Your task to perform on an android device: What's the price of the Hisense TV? Image 0: 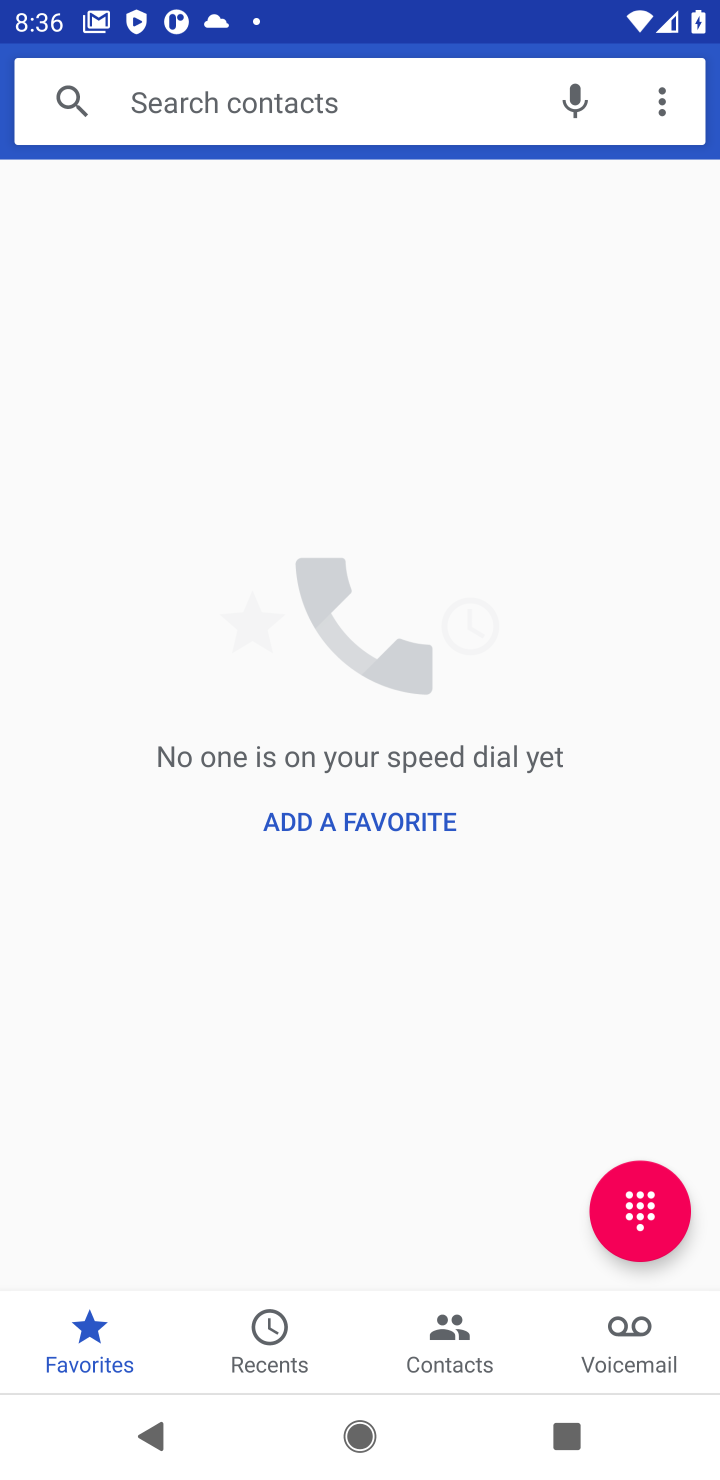
Step 0: press home button
Your task to perform on an android device: What's the price of the Hisense TV? Image 1: 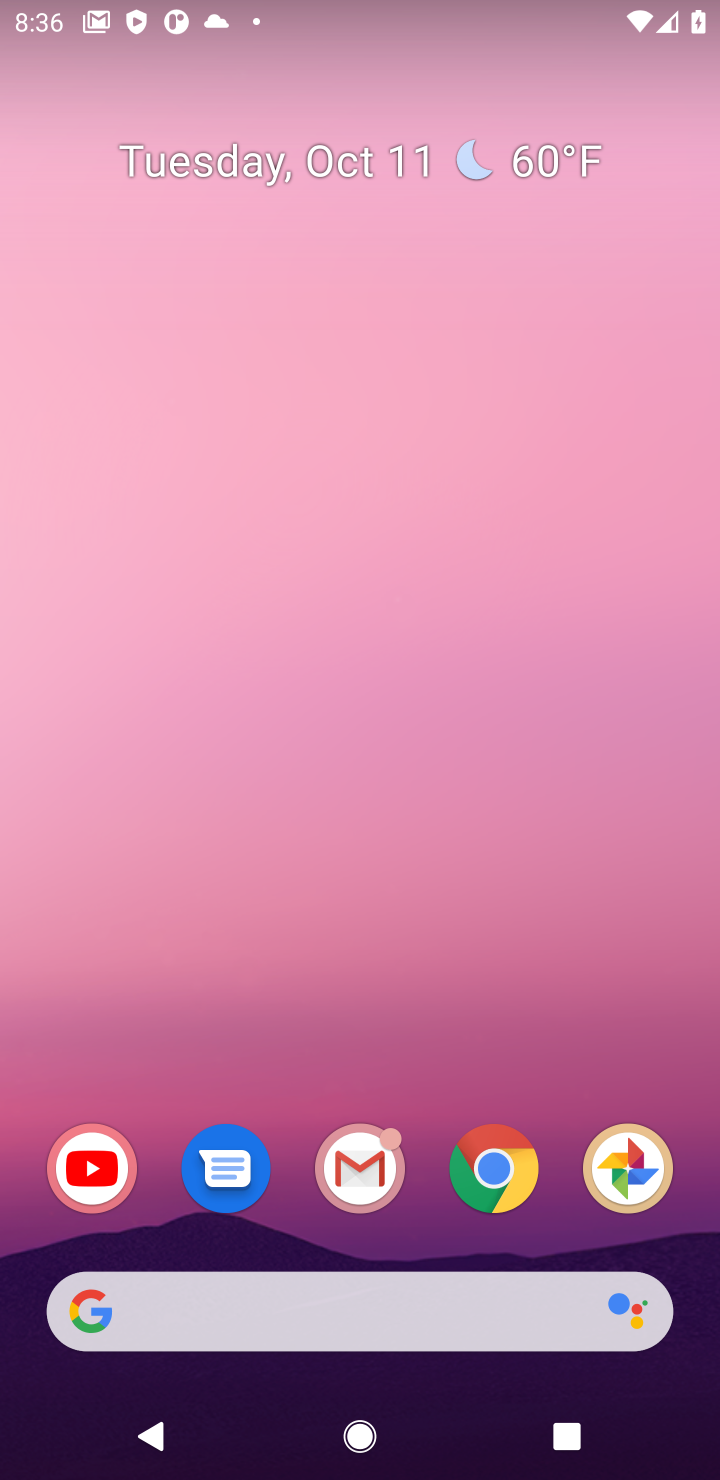
Step 1: click (495, 1172)
Your task to perform on an android device: What's the price of the Hisense TV? Image 2: 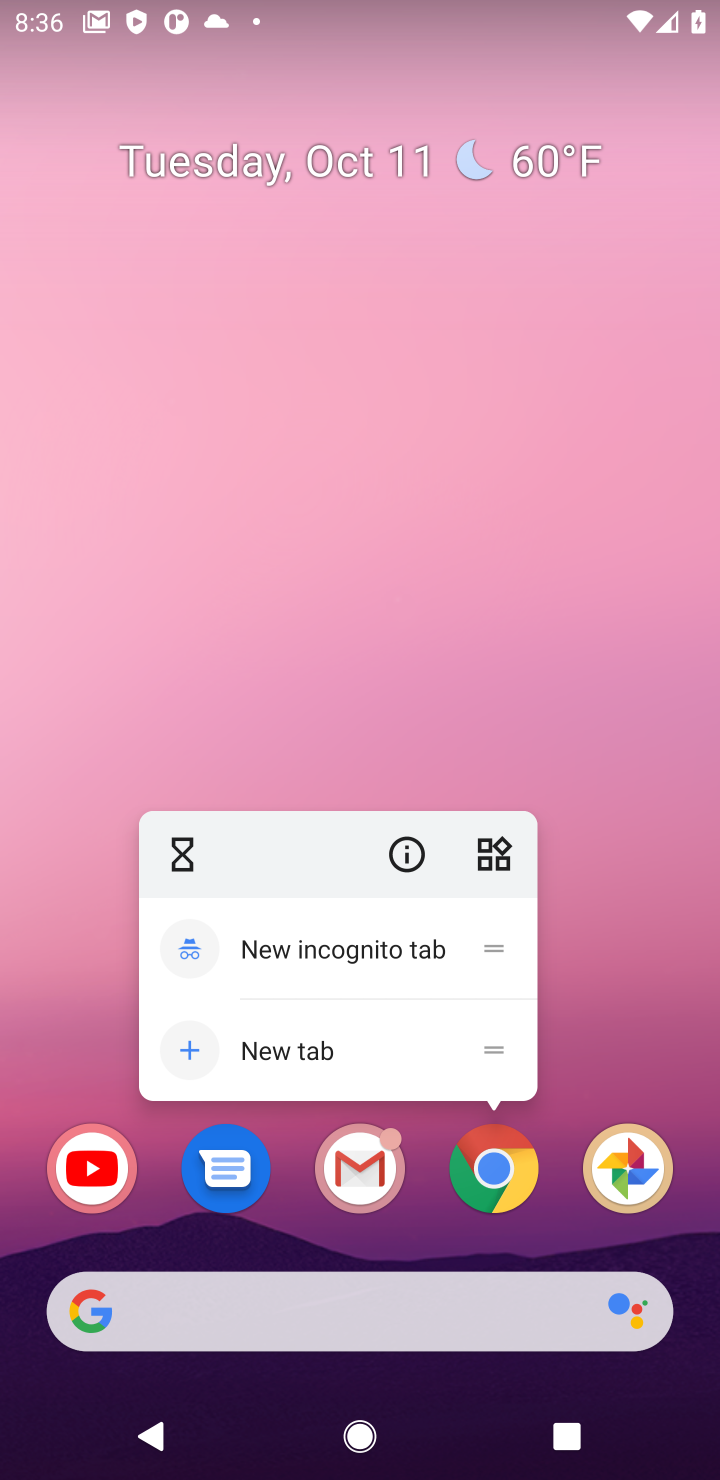
Step 2: click (504, 1158)
Your task to perform on an android device: What's the price of the Hisense TV? Image 3: 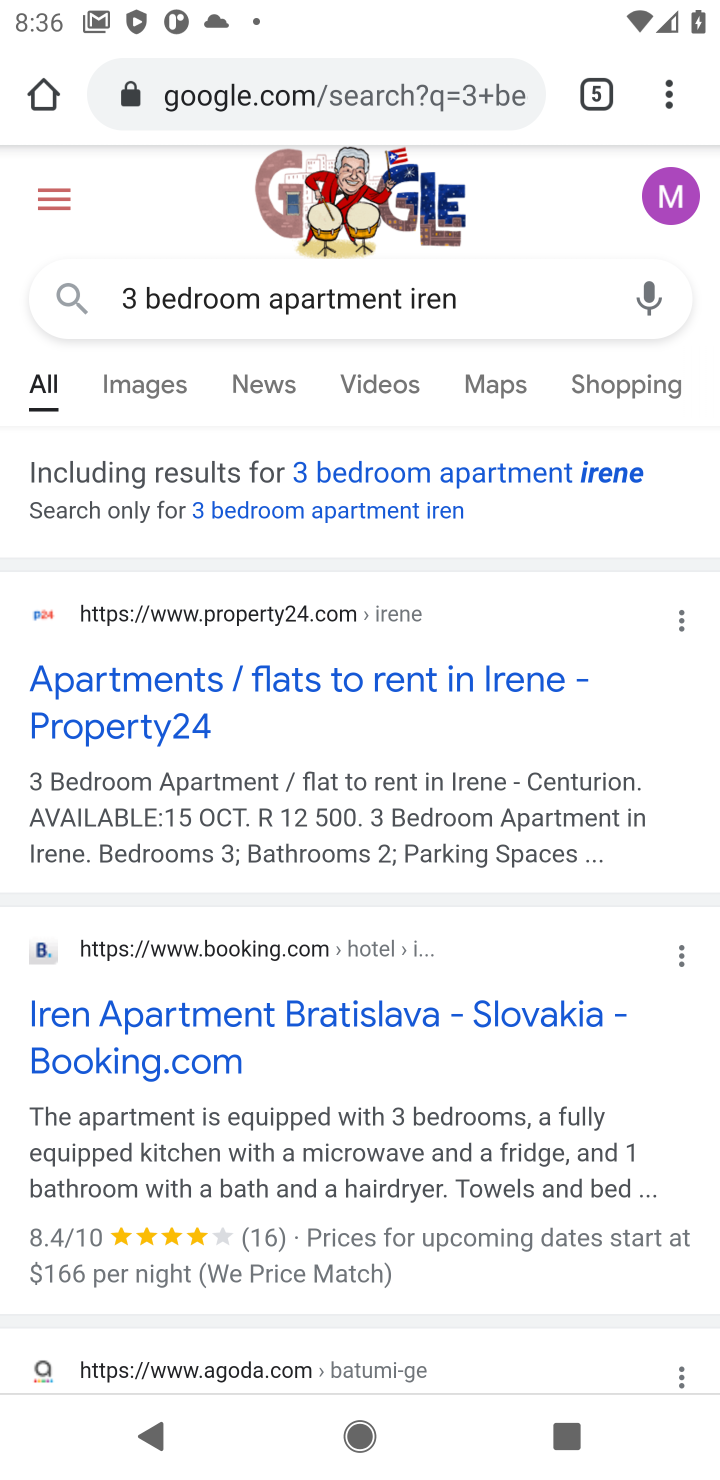
Step 3: click (339, 100)
Your task to perform on an android device: What's the price of the Hisense TV? Image 4: 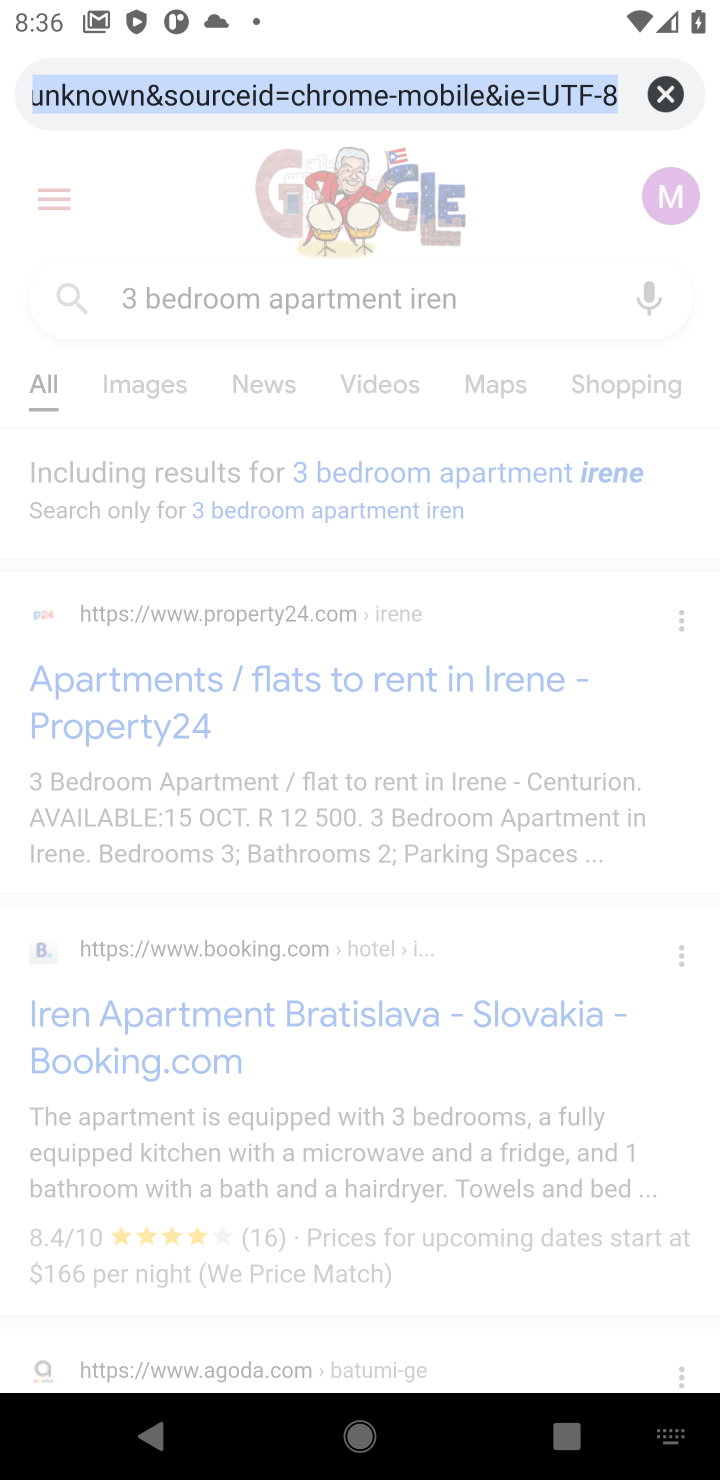
Step 4: click (651, 89)
Your task to perform on an android device: What's the price of the Hisense TV? Image 5: 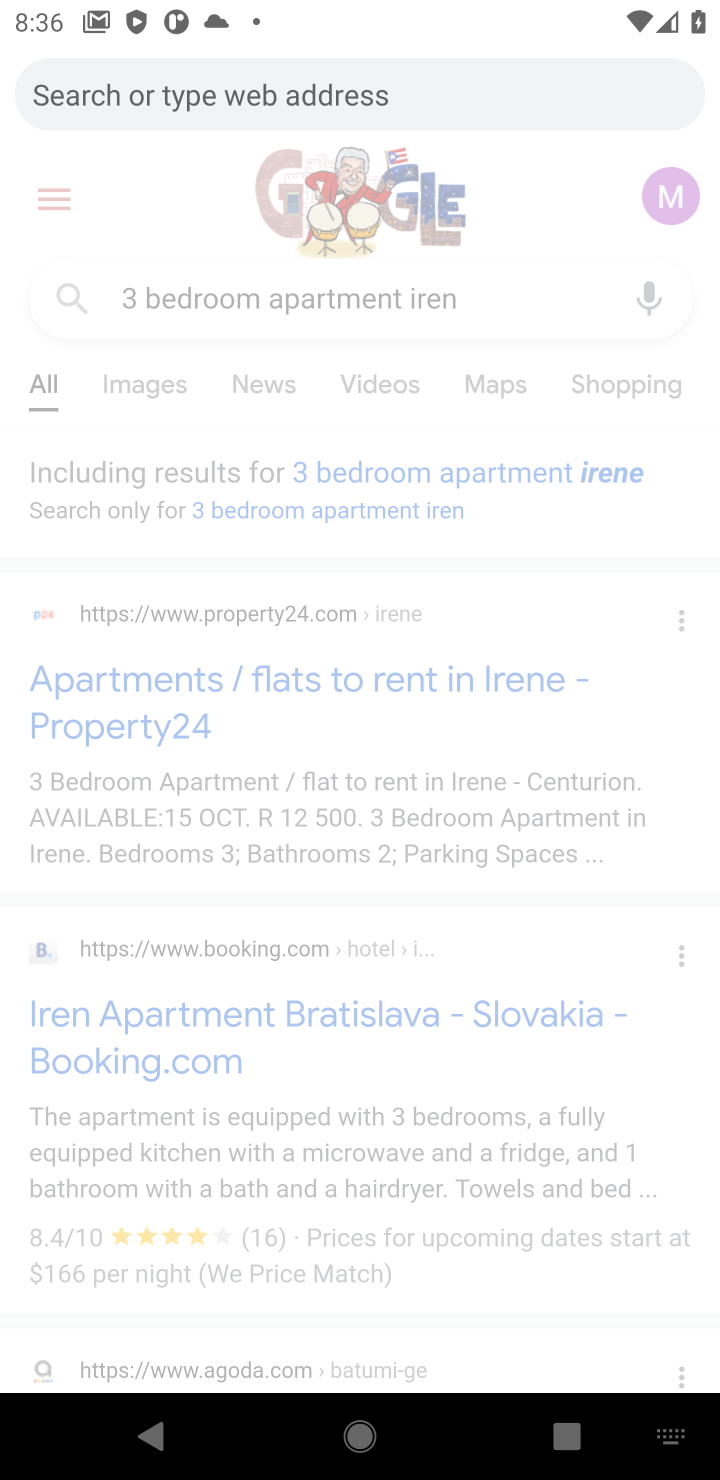
Step 5: type "price of the hisense TV"
Your task to perform on an android device: What's the price of the Hisense TV? Image 6: 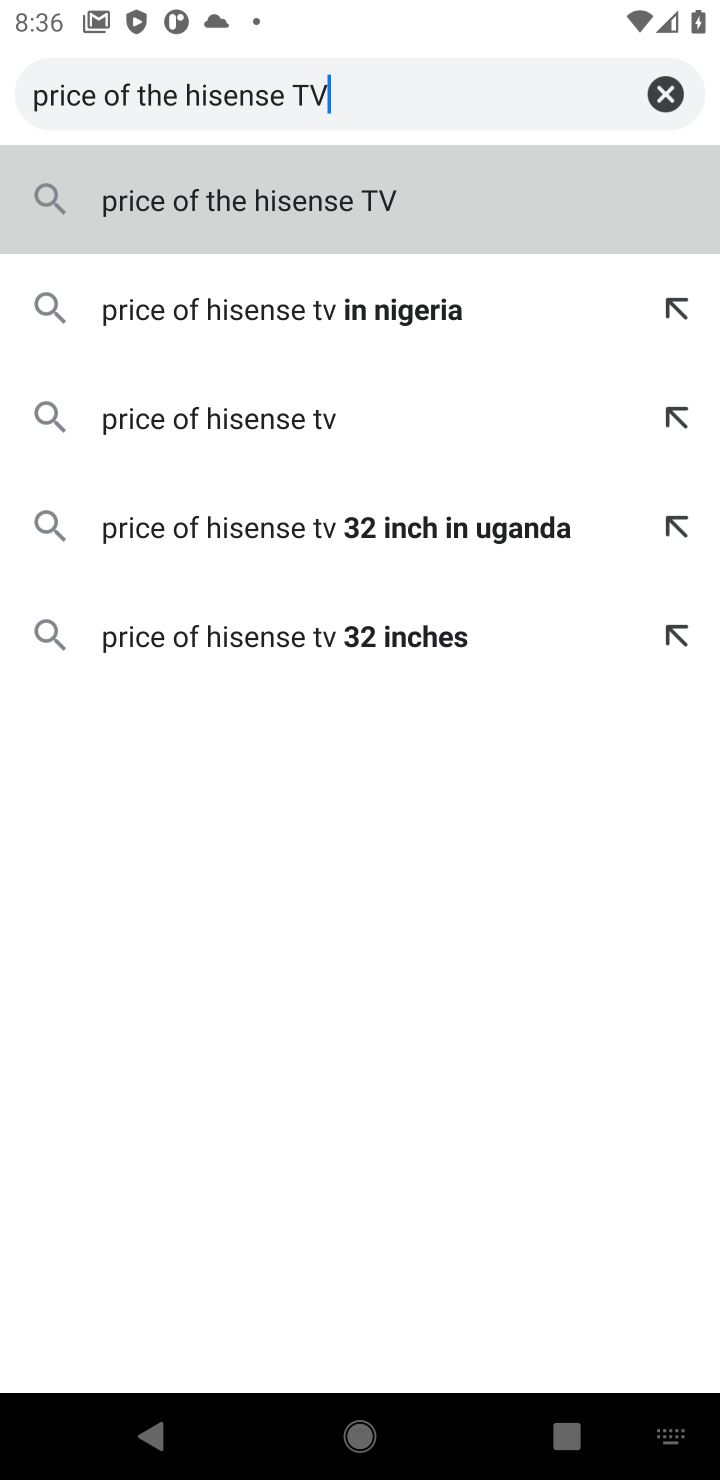
Step 6: click (343, 201)
Your task to perform on an android device: What's the price of the Hisense TV? Image 7: 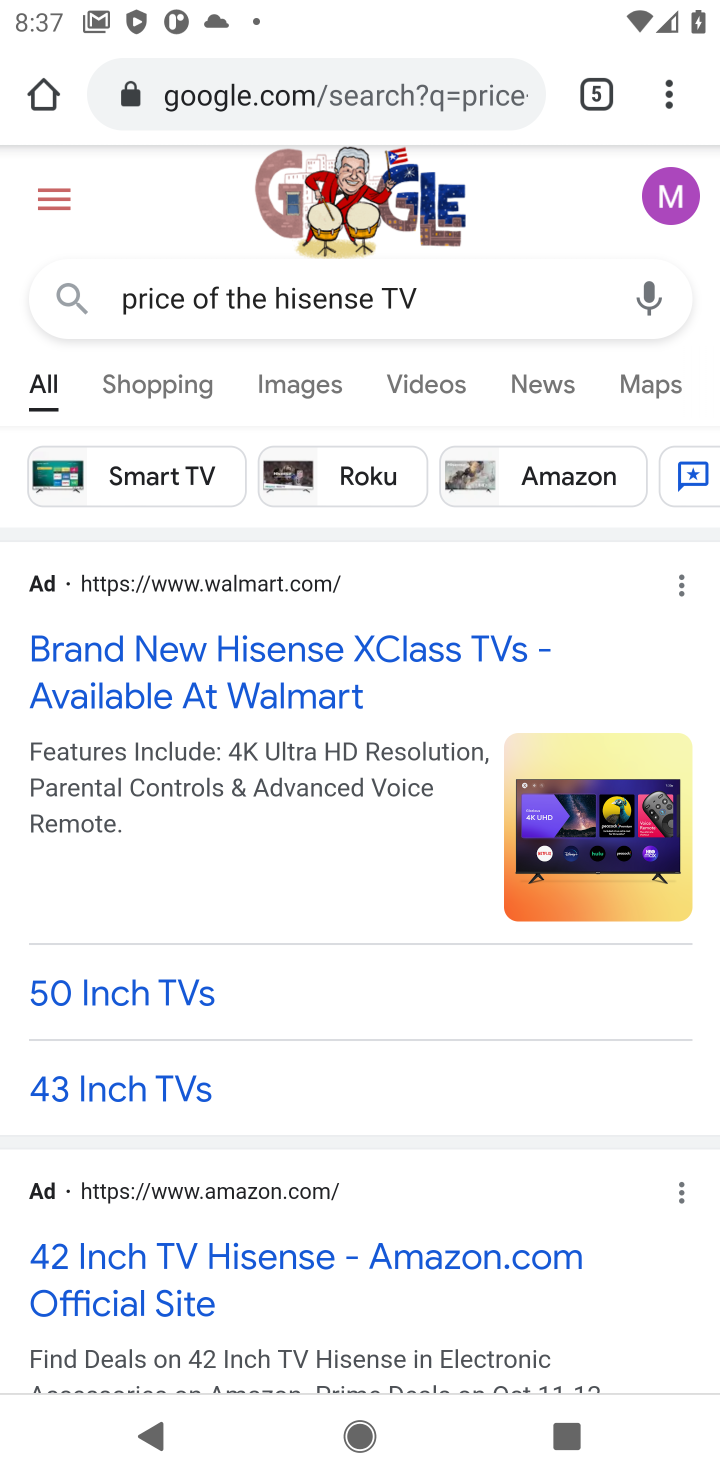
Step 7: drag from (323, 971) to (273, 524)
Your task to perform on an android device: What's the price of the Hisense TV? Image 8: 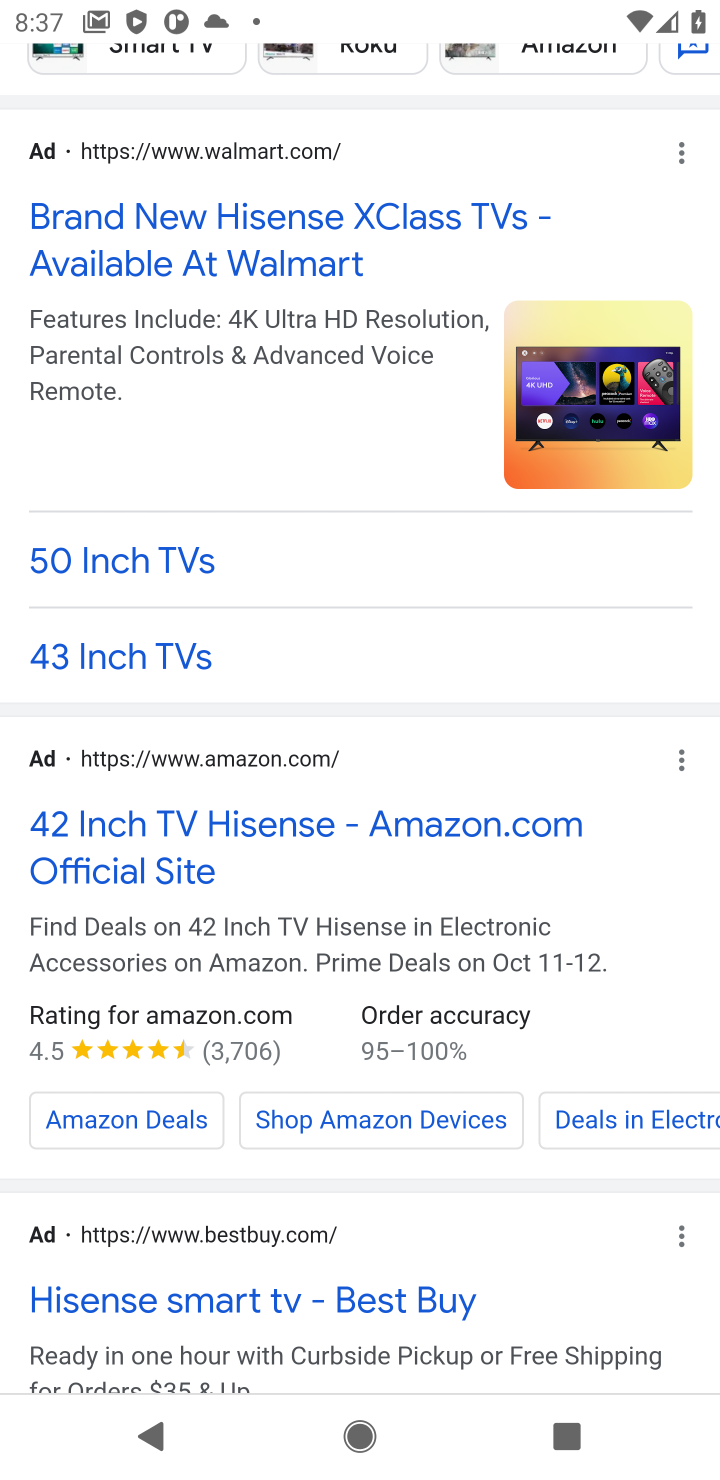
Step 8: click (228, 1295)
Your task to perform on an android device: What's the price of the Hisense TV? Image 9: 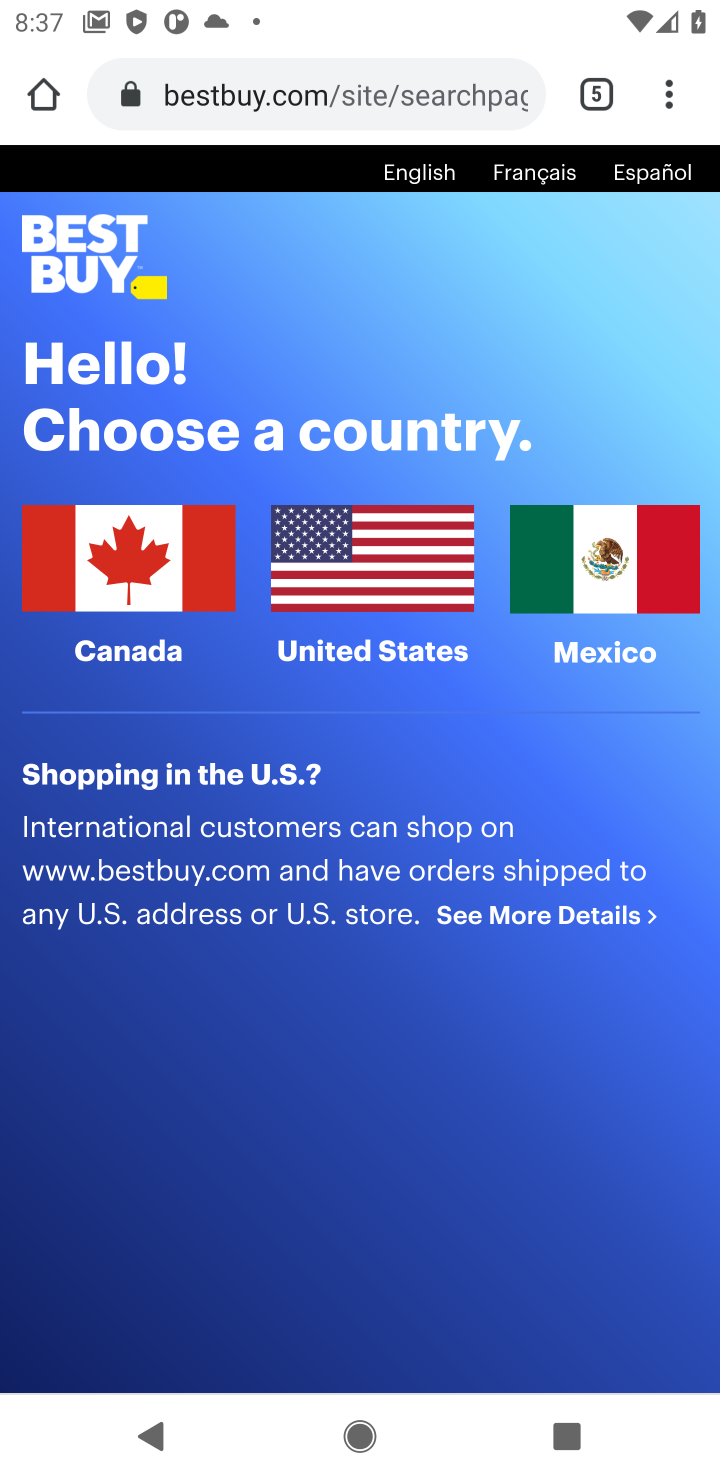
Step 9: click (104, 570)
Your task to perform on an android device: What's the price of the Hisense TV? Image 10: 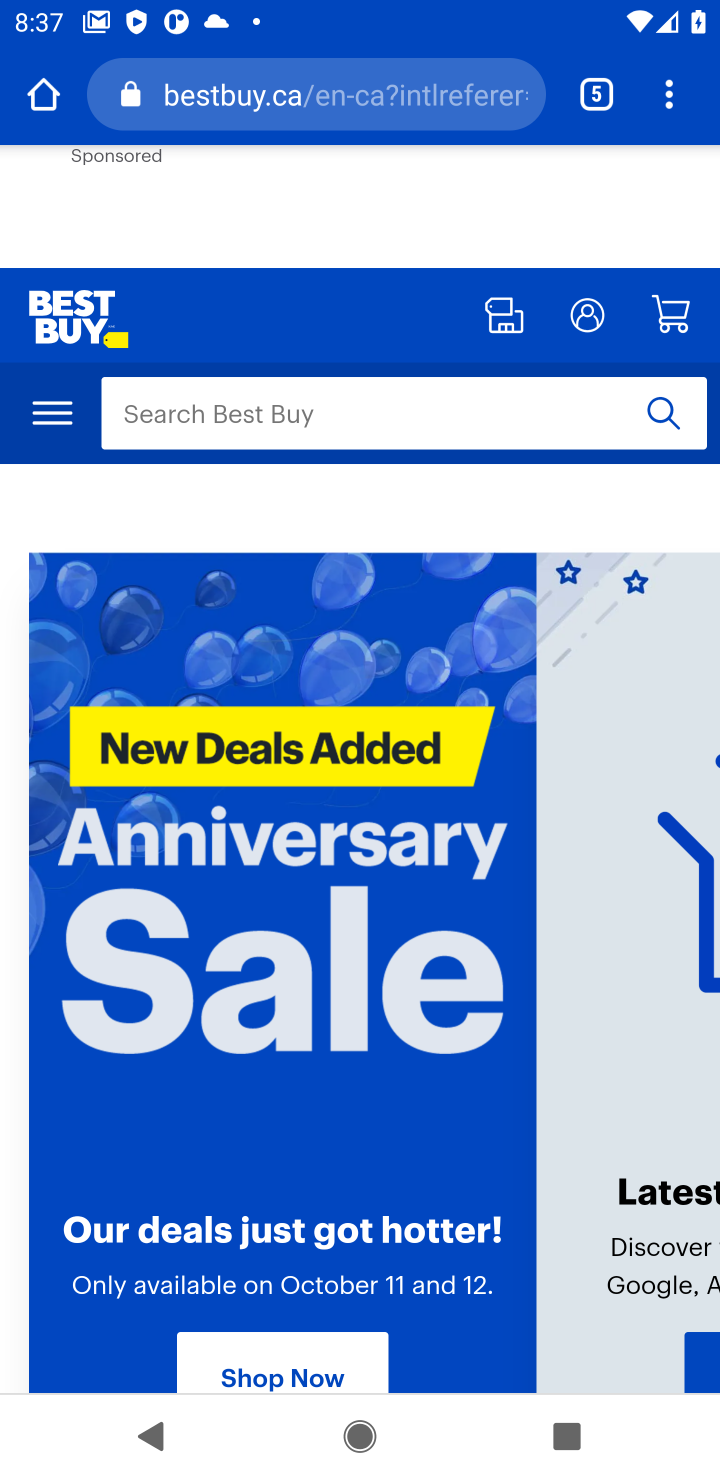
Step 10: drag from (561, 1002) to (565, 584)
Your task to perform on an android device: What's the price of the Hisense TV? Image 11: 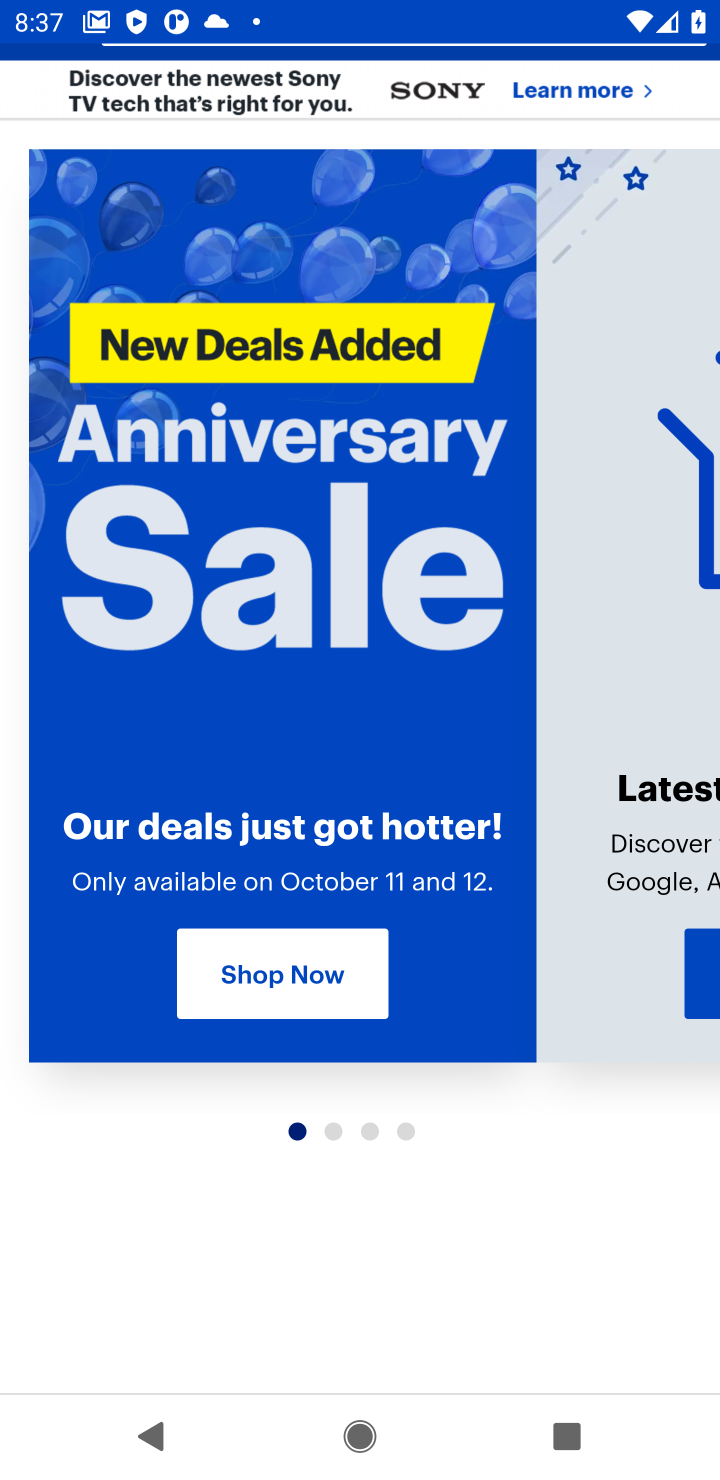
Step 11: drag from (145, 1106) to (295, 437)
Your task to perform on an android device: What's the price of the Hisense TV? Image 12: 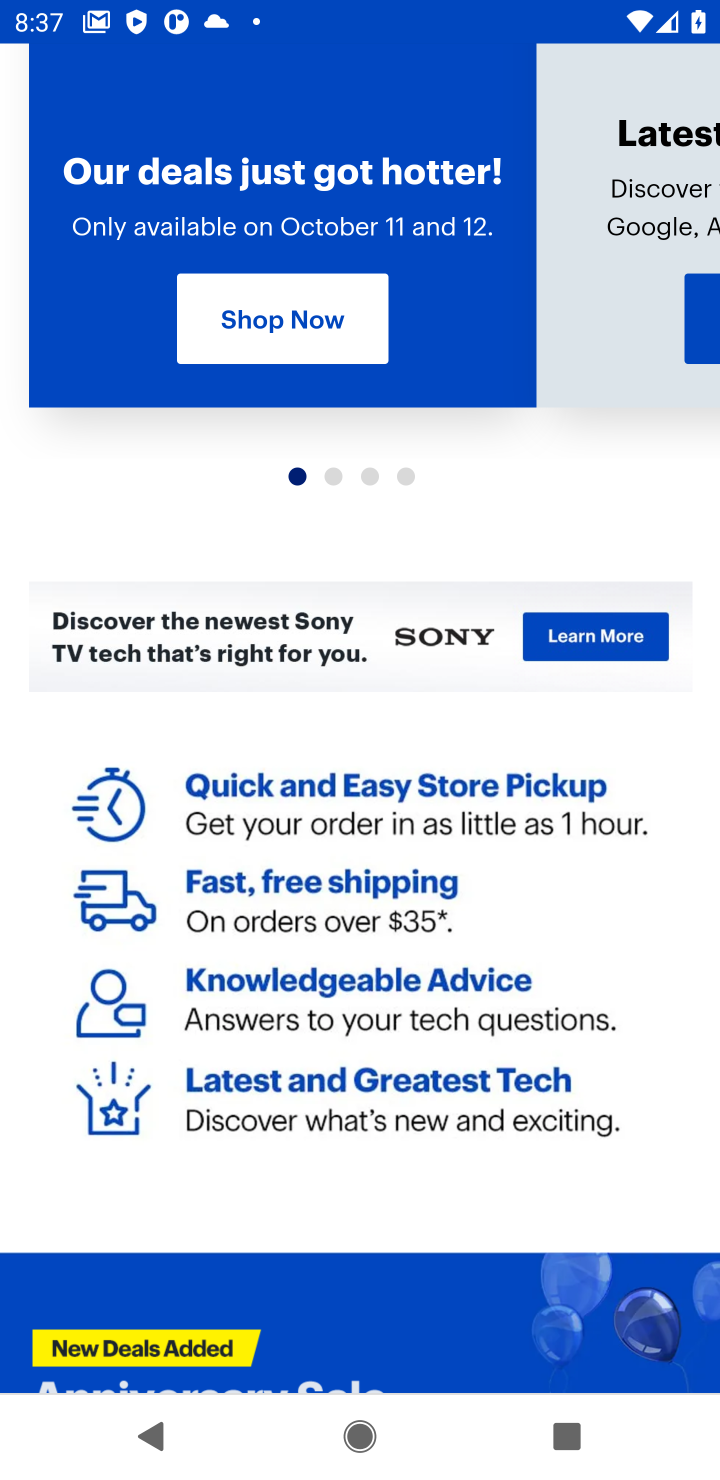
Step 12: drag from (524, 779) to (670, 137)
Your task to perform on an android device: What's the price of the Hisense TV? Image 13: 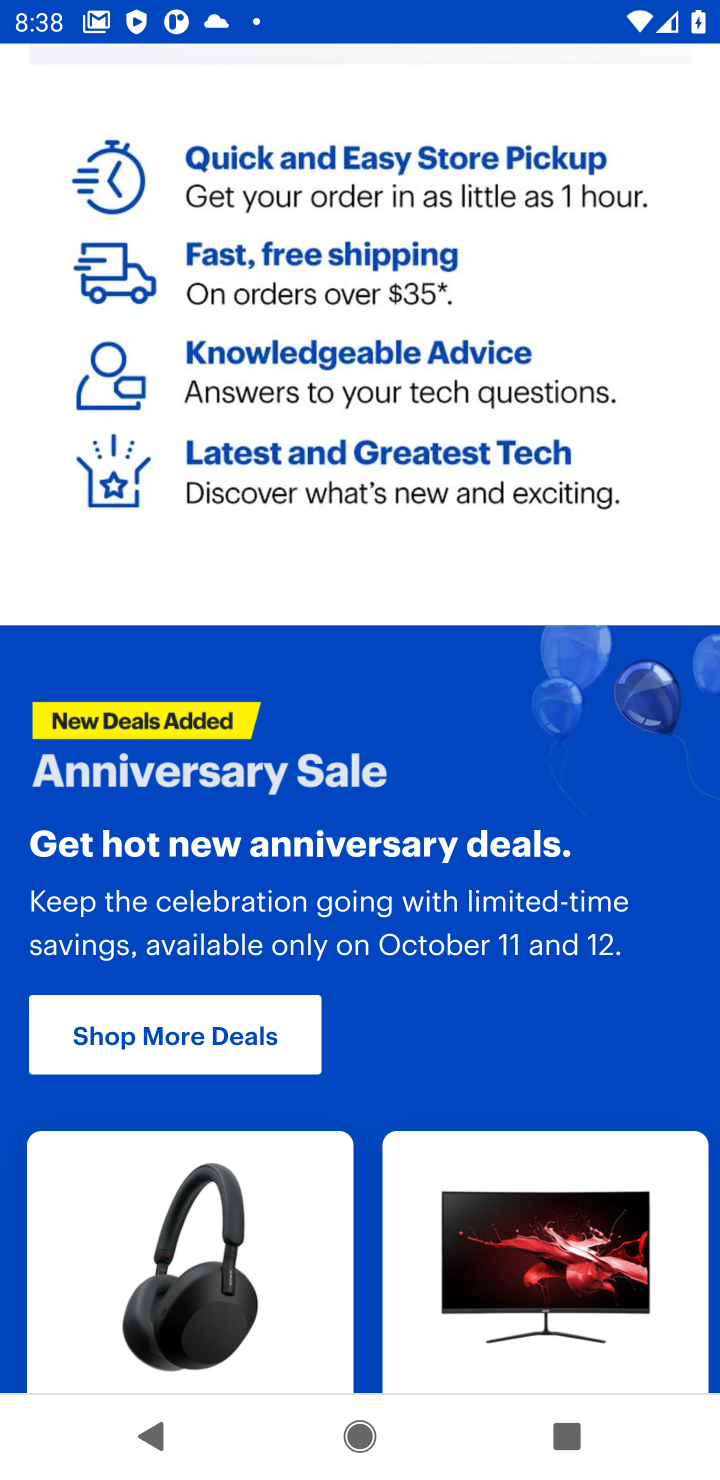
Step 13: drag from (263, 983) to (373, 385)
Your task to perform on an android device: What's the price of the Hisense TV? Image 14: 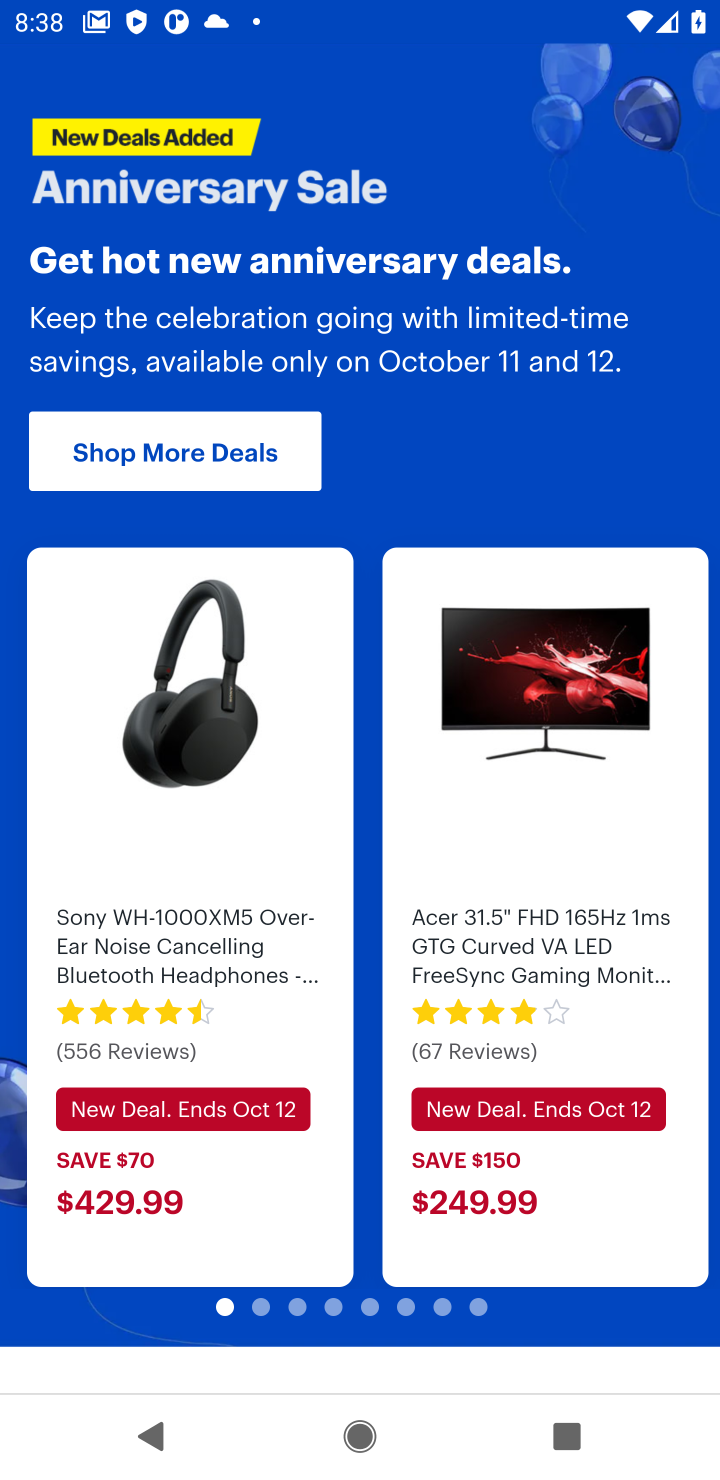
Step 14: drag from (322, 901) to (393, 457)
Your task to perform on an android device: What's the price of the Hisense TV? Image 15: 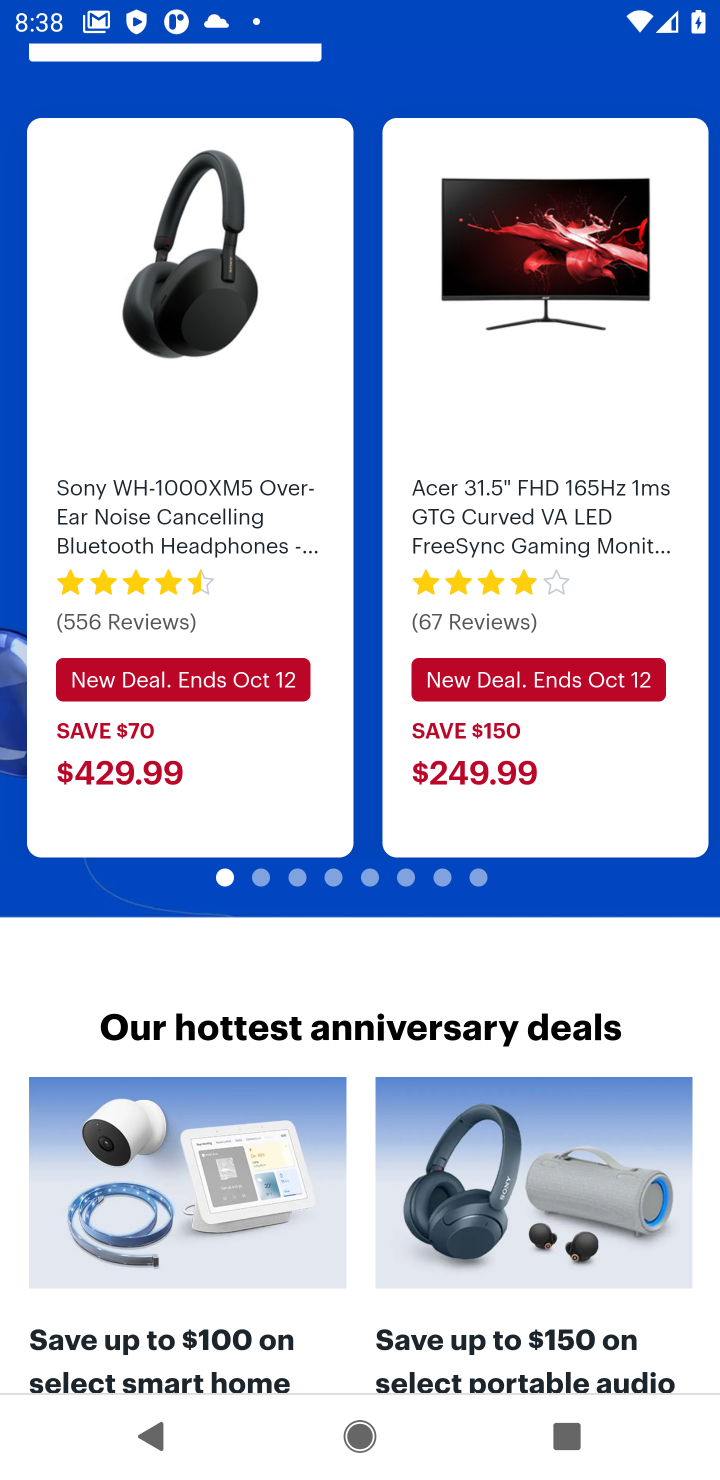
Step 15: drag from (430, 846) to (370, 1471)
Your task to perform on an android device: What's the price of the Hisense TV? Image 16: 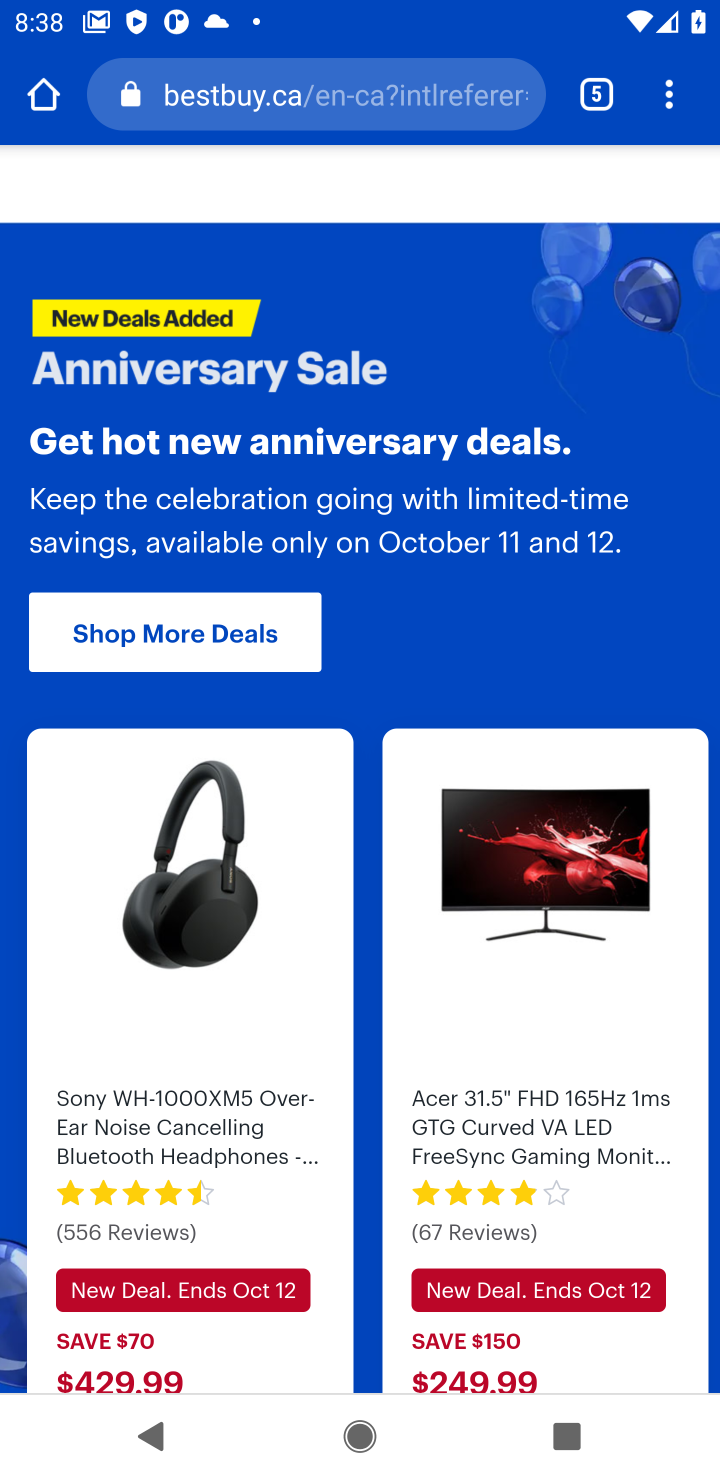
Step 16: click (412, 99)
Your task to perform on an android device: What's the price of the Hisense TV? Image 17: 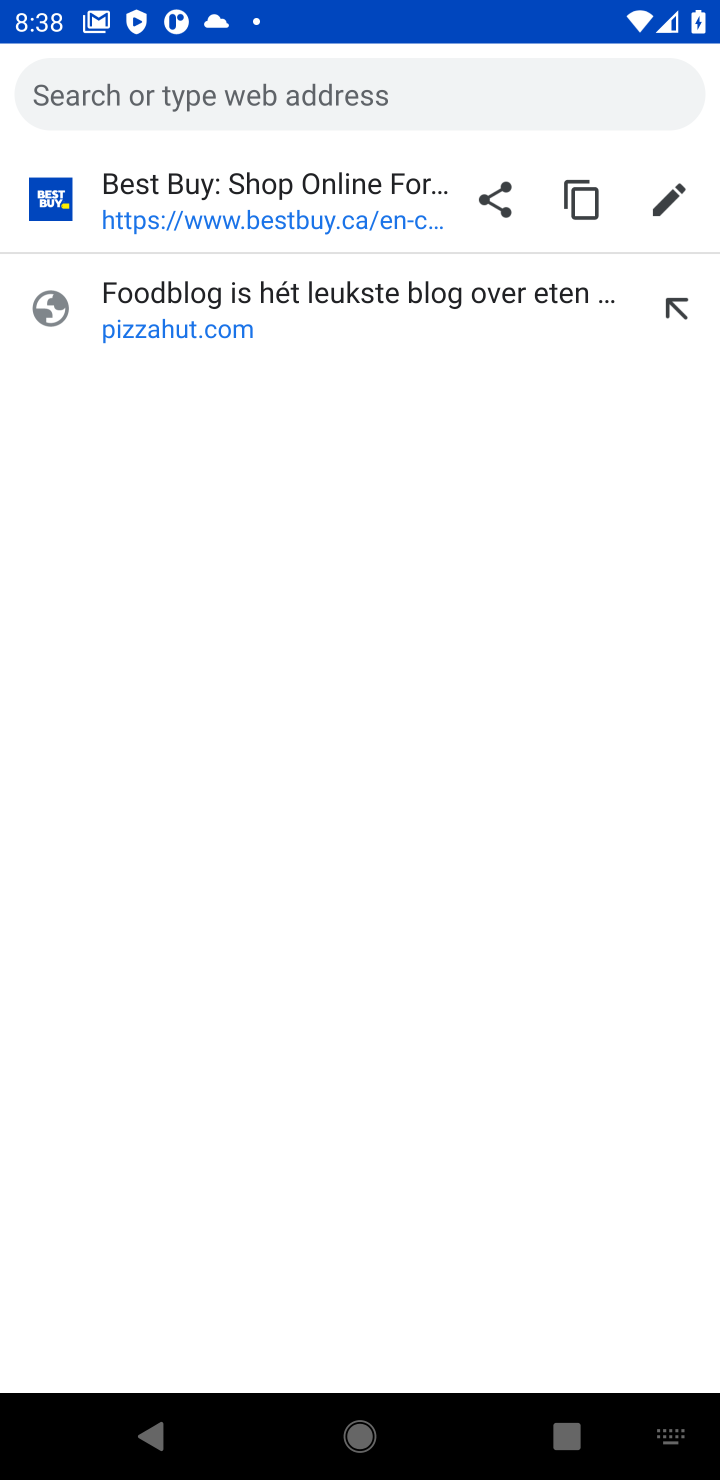
Step 17: type "price of the hisense tv"
Your task to perform on an android device: What's the price of the Hisense TV? Image 18: 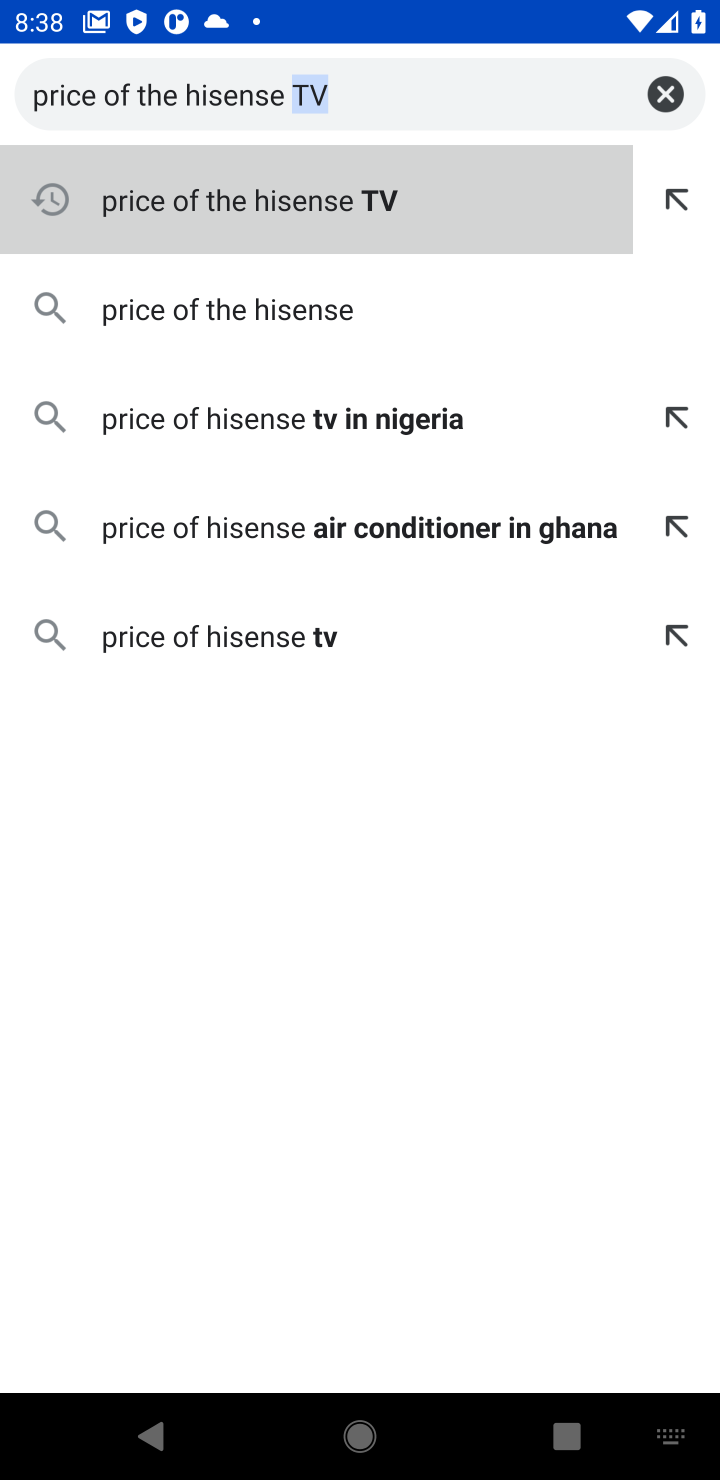
Step 18: click (382, 207)
Your task to perform on an android device: What's the price of the Hisense TV? Image 19: 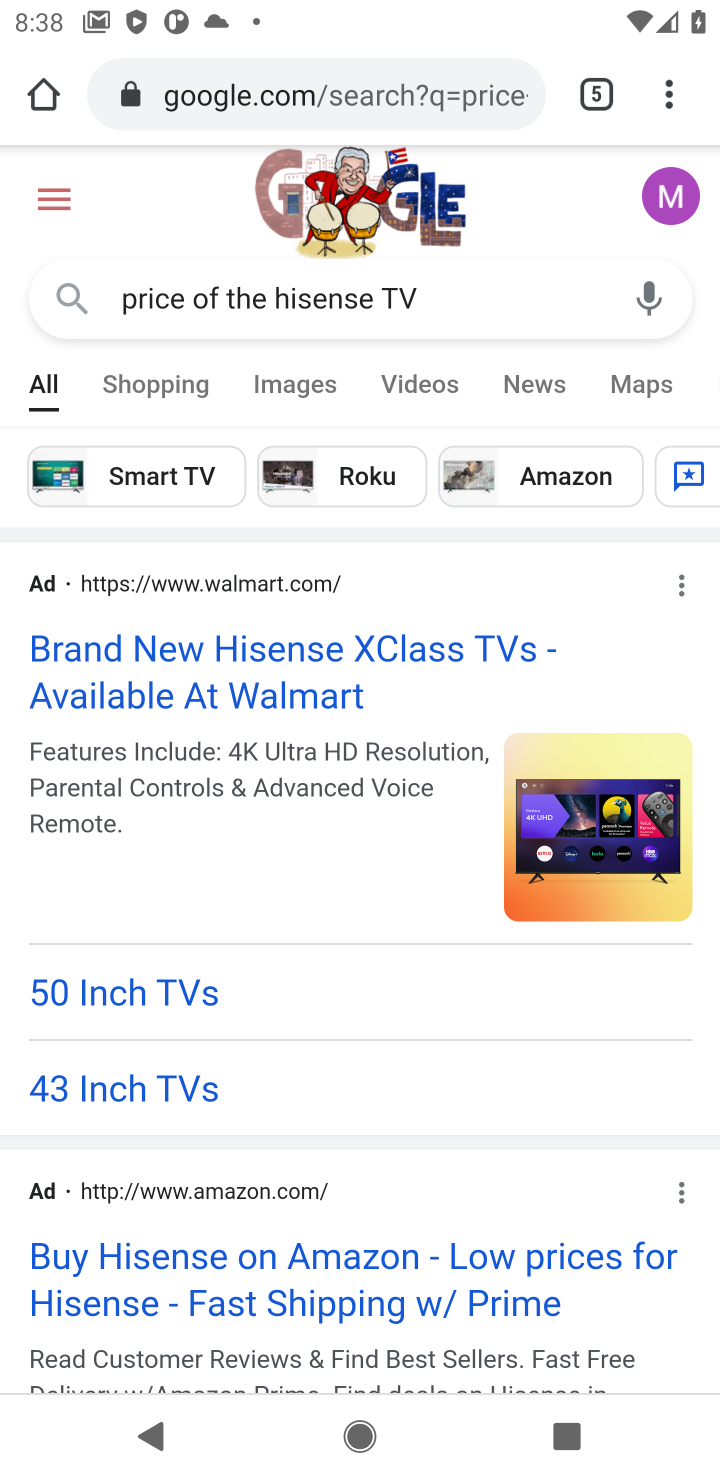
Step 19: drag from (289, 1214) to (252, 513)
Your task to perform on an android device: What's the price of the Hisense TV? Image 20: 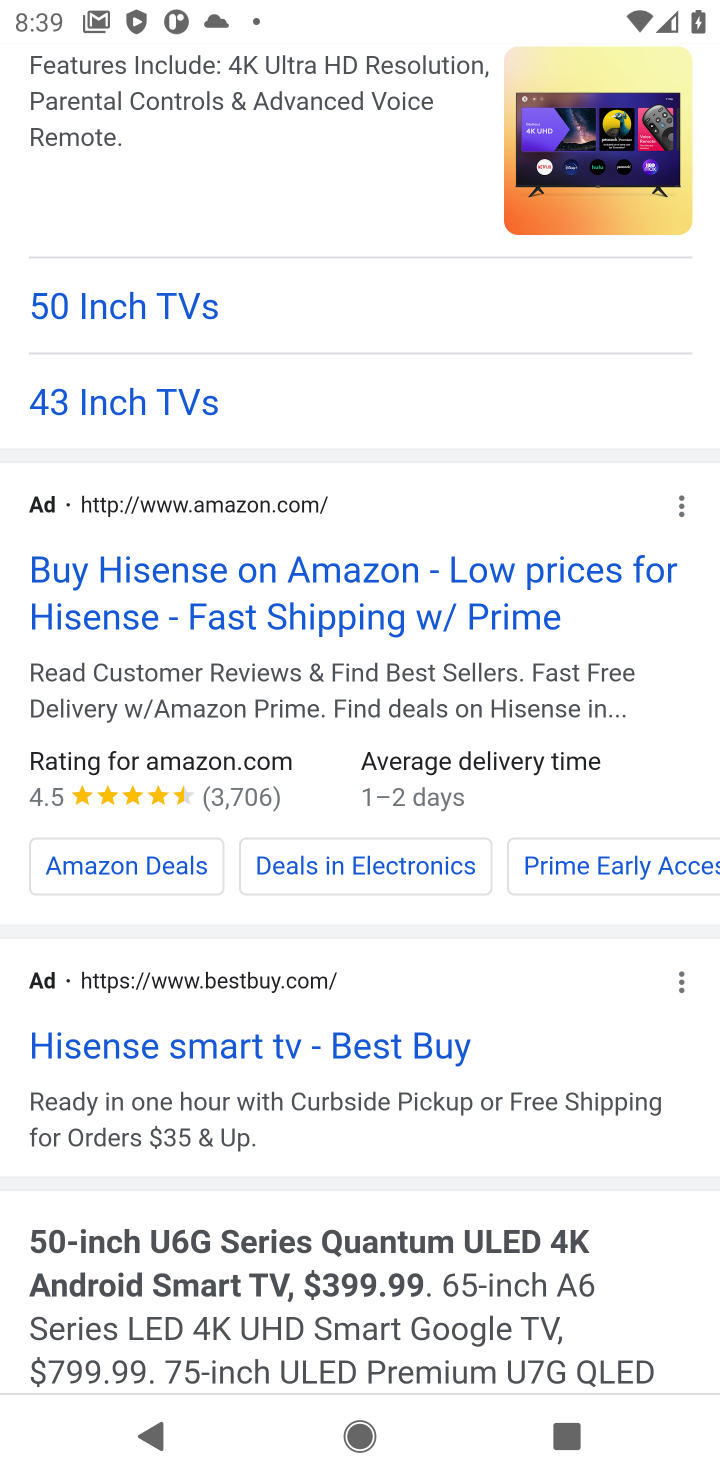
Step 20: drag from (226, 917) to (263, 659)
Your task to perform on an android device: What's the price of the Hisense TV? Image 21: 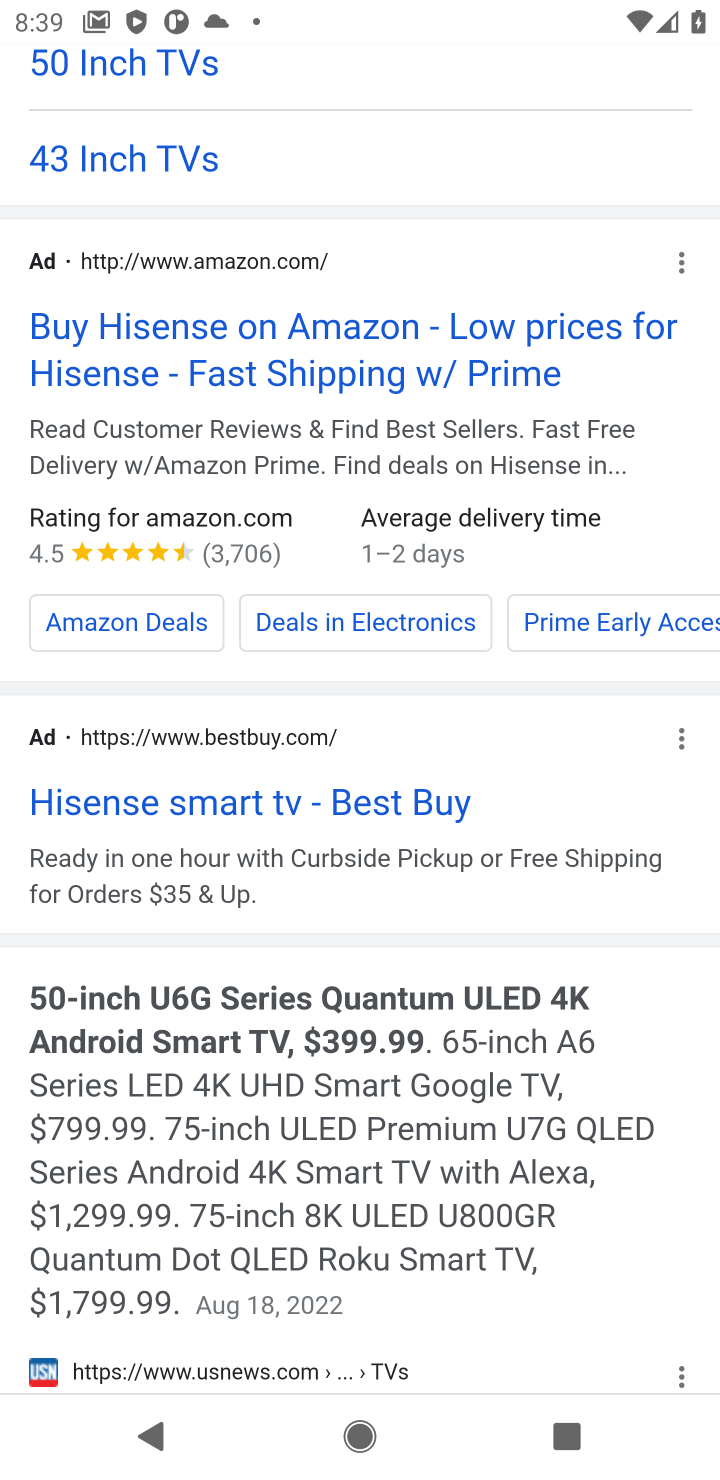
Step 21: drag from (266, 1207) to (355, 680)
Your task to perform on an android device: What's the price of the Hisense TV? Image 22: 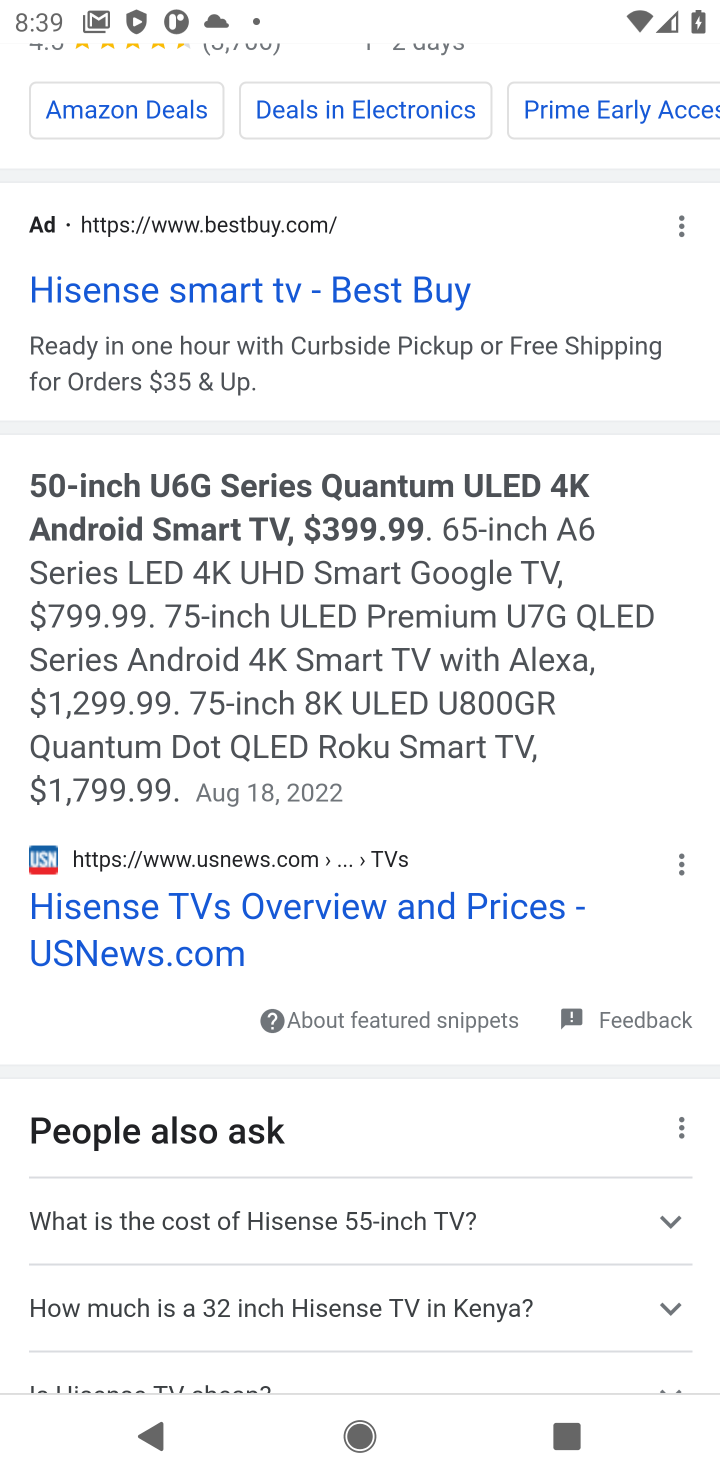
Step 22: drag from (216, 692) to (246, 500)
Your task to perform on an android device: What's the price of the Hisense TV? Image 23: 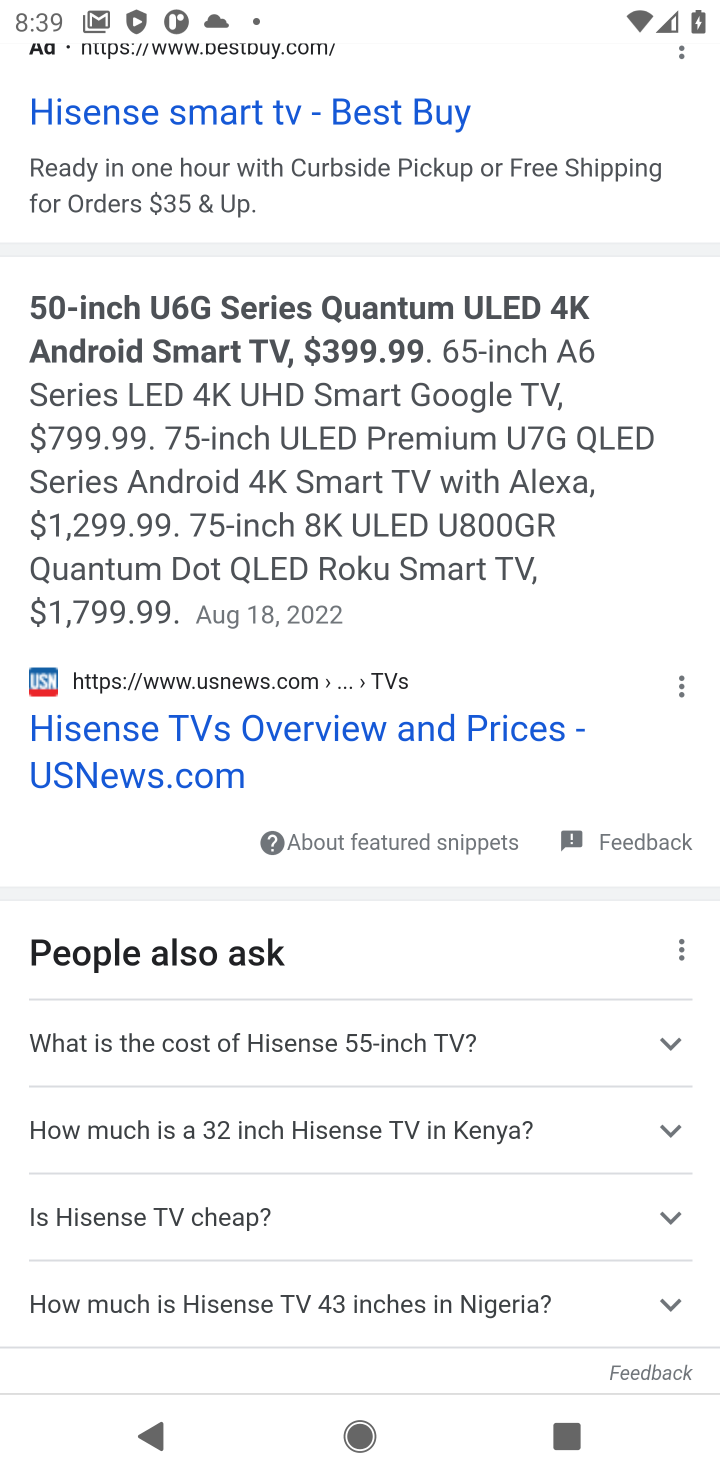
Step 23: drag from (233, 555) to (263, 395)
Your task to perform on an android device: What's the price of the Hisense TV? Image 24: 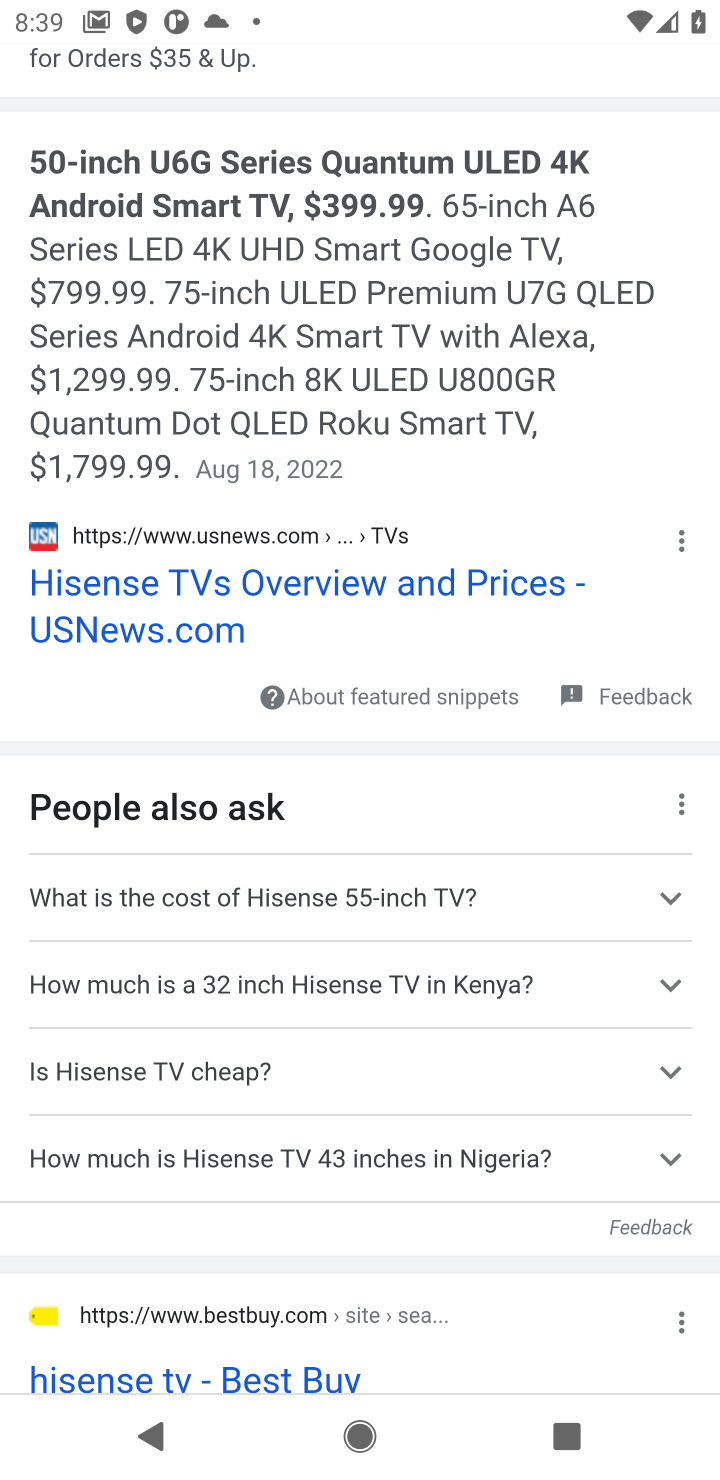
Step 24: click (298, 900)
Your task to perform on an android device: What's the price of the Hisense TV? Image 25: 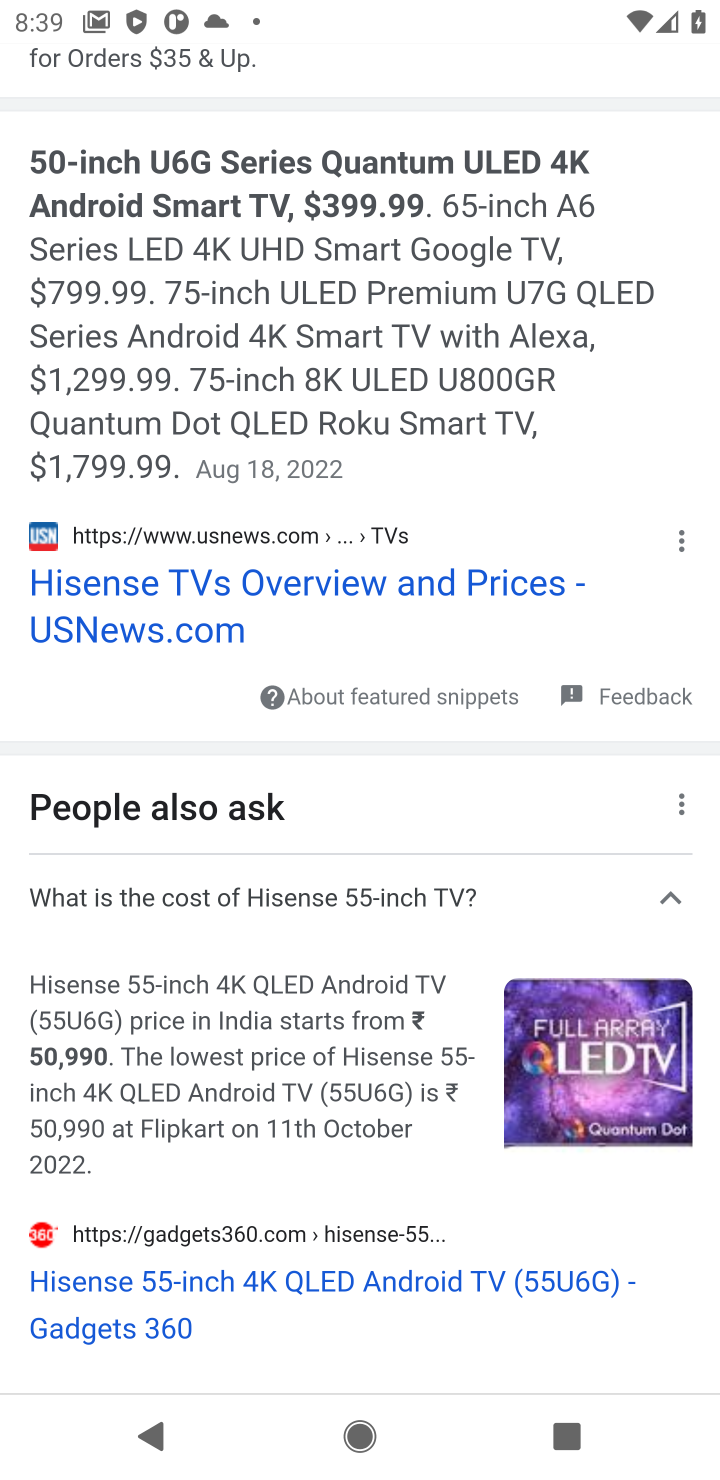
Step 25: task complete